Your task to perform on an android device: Search for Italian restaurants on Maps Image 0: 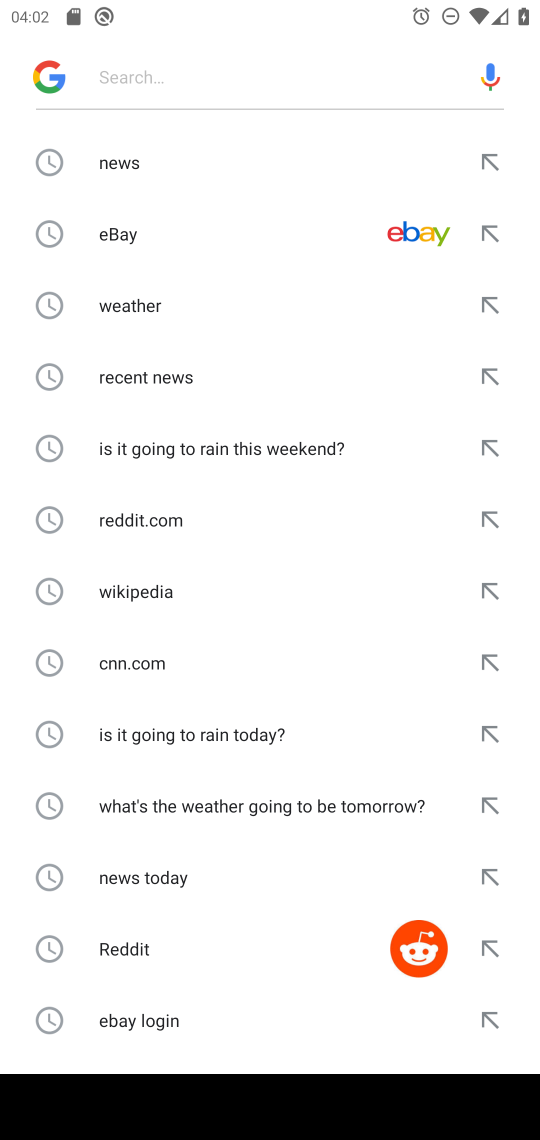
Step 0: press home button
Your task to perform on an android device: Search for Italian restaurants on Maps Image 1: 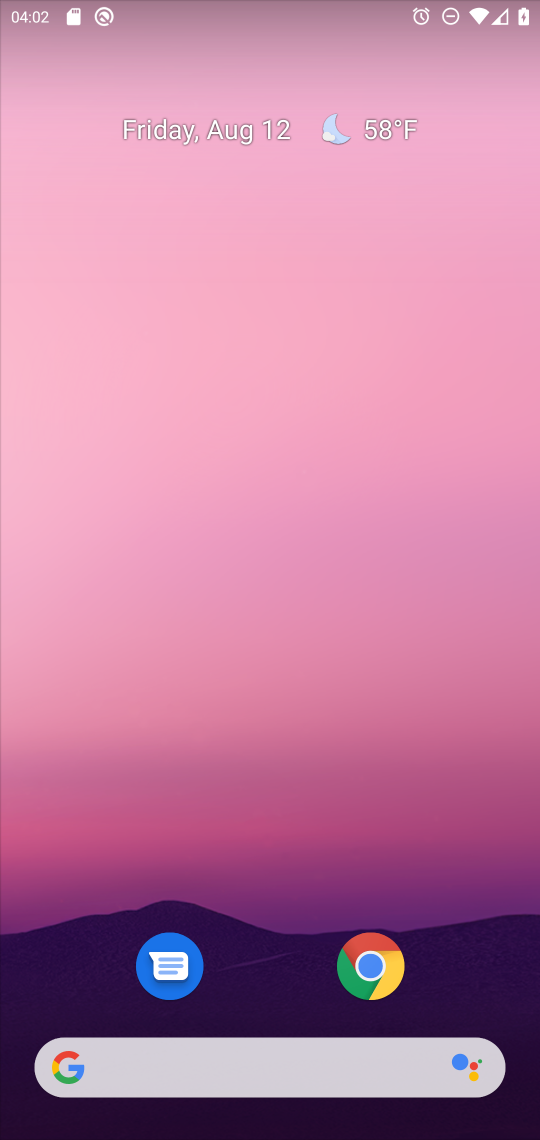
Step 1: drag from (295, 828) to (385, 58)
Your task to perform on an android device: Search for Italian restaurants on Maps Image 2: 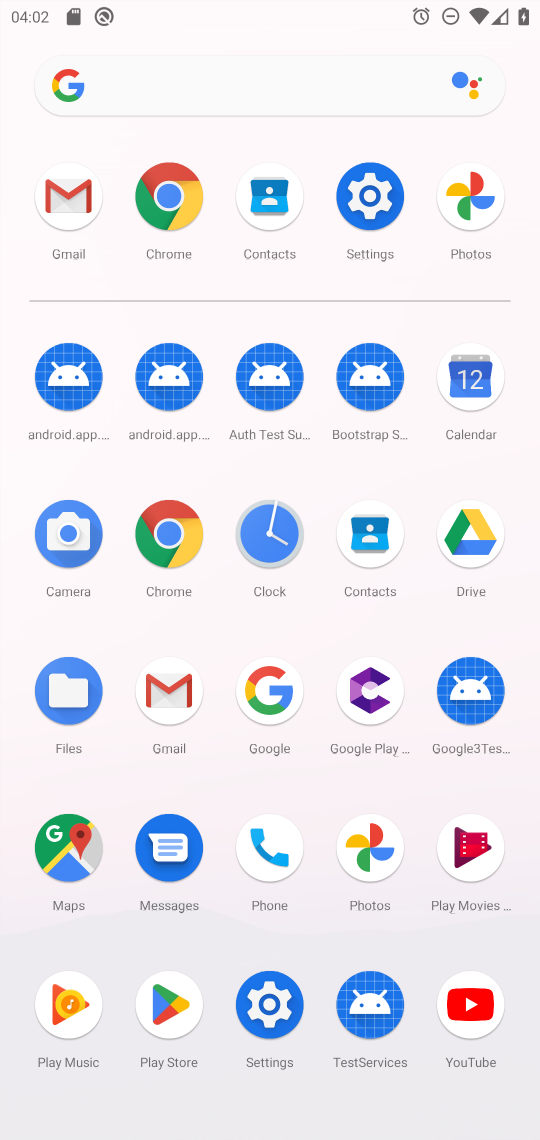
Step 2: click (57, 838)
Your task to perform on an android device: Search for Italian restaurants on Maps Image 3: 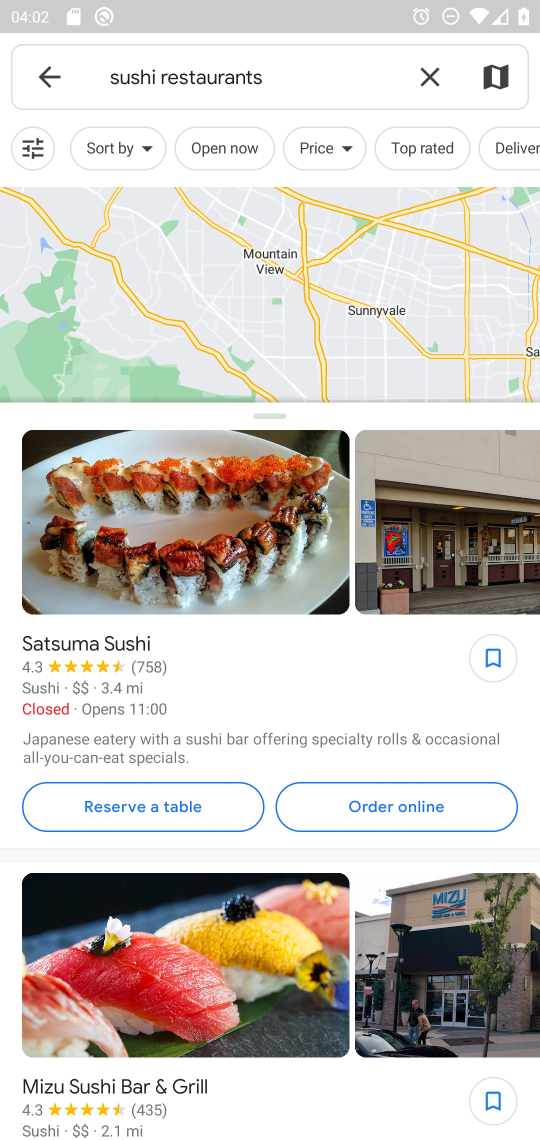
Step 3: click (435, 57)
Your task to perform on an android device: Search for Italian restaurants on Maps Image 4: 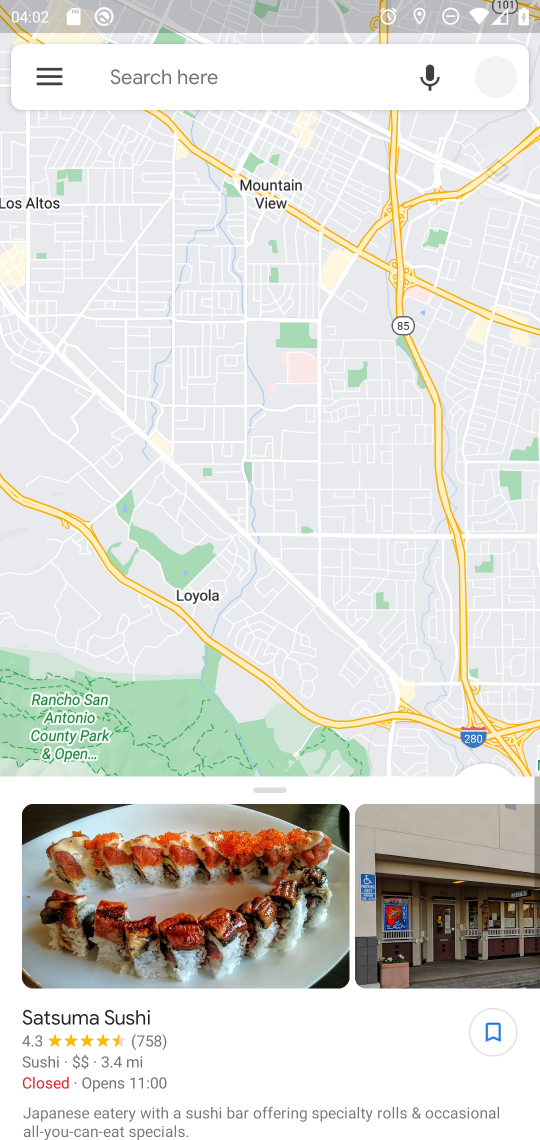
Step 4: click (274, 62)
Your task to perform on an android device: Search for Italian restaurants on Maps Image 5: 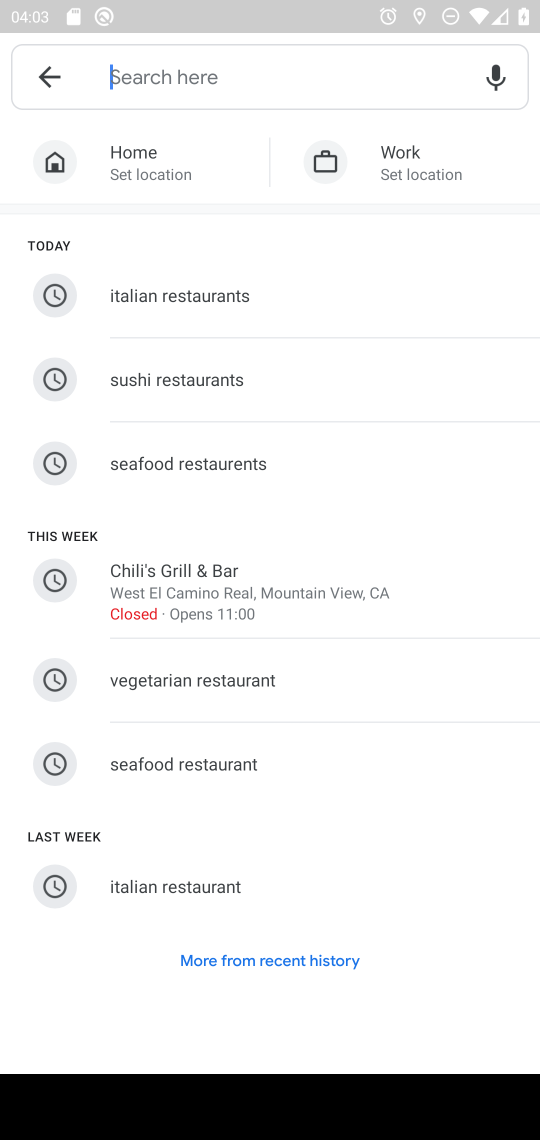
Step 5: type "italiian restaurants"
Your task to perform on an android device: Search for Italian restaurants on Maps Image 6: 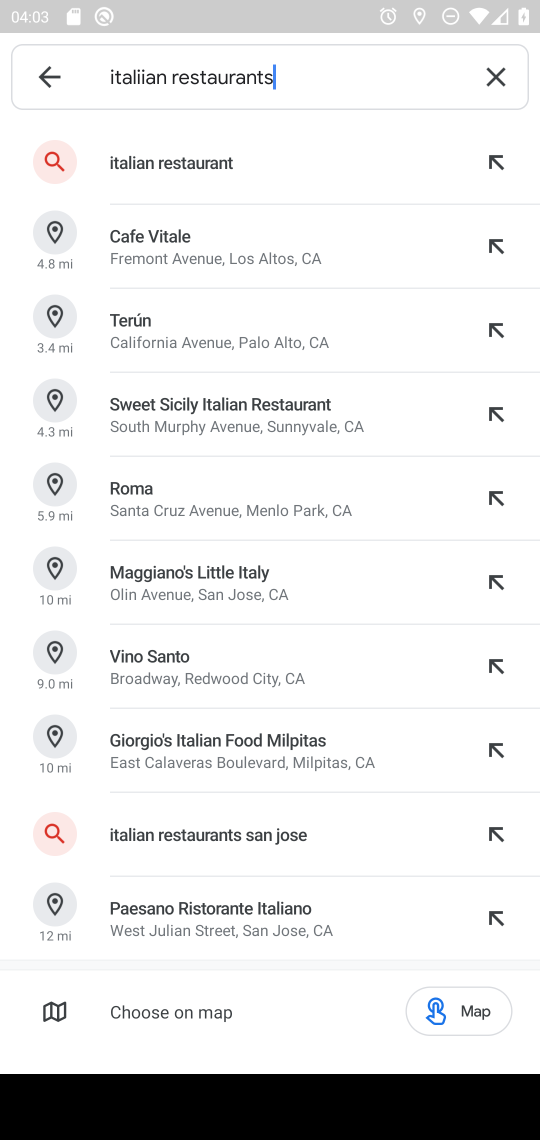
Step 6: press enter
Your task to perform on an android device: Search for Italian restaurants on Maps Image 7: 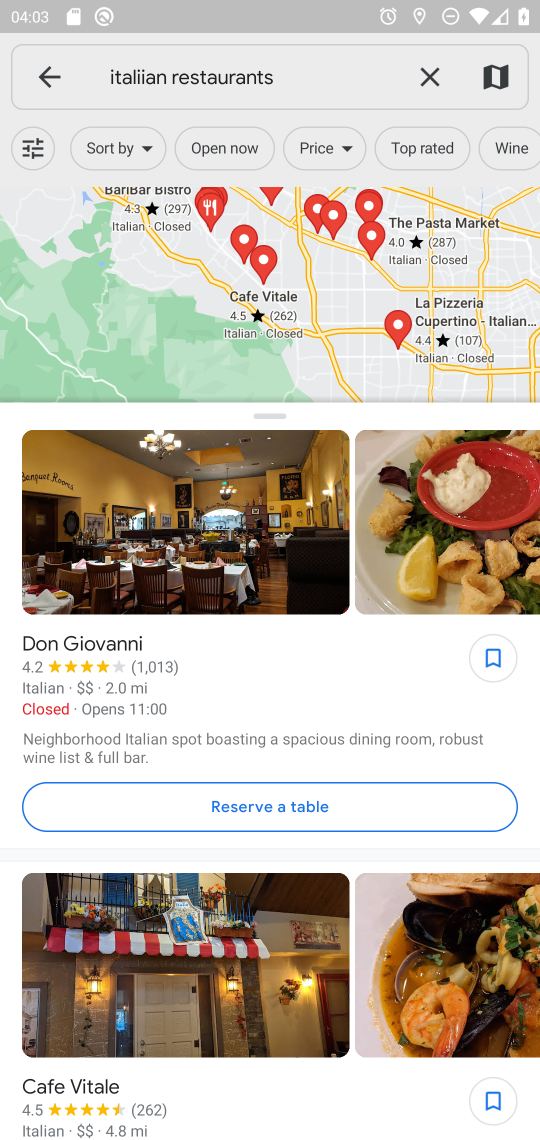
Step 7: task complete